Your task to perform on an android device: see tabs open on other devices in the chrome app Image 0: 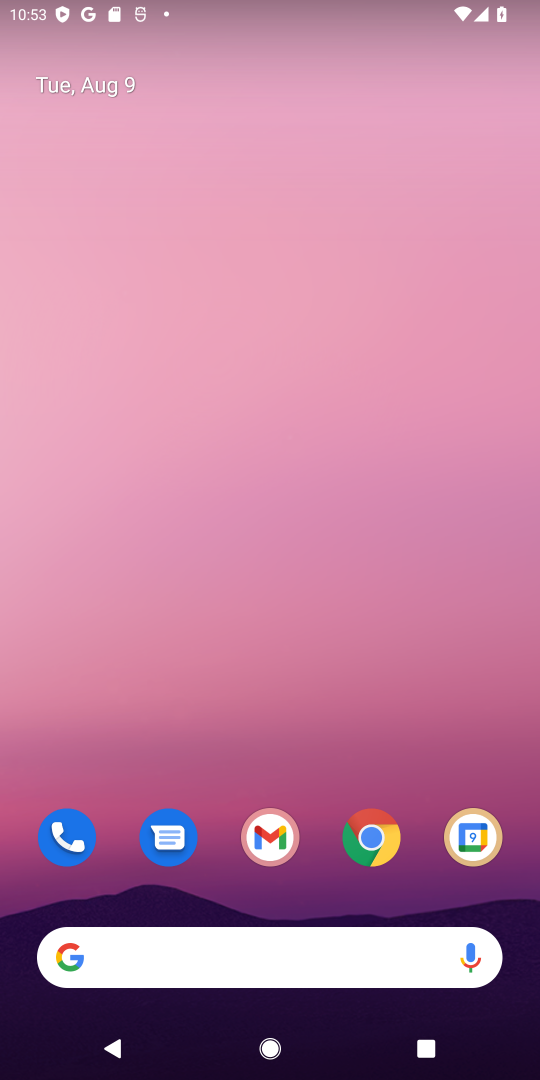
Step 0: click (365, 829)
Your task to perform on an android device: see tabs open on other devices in the chrome app Image 1: 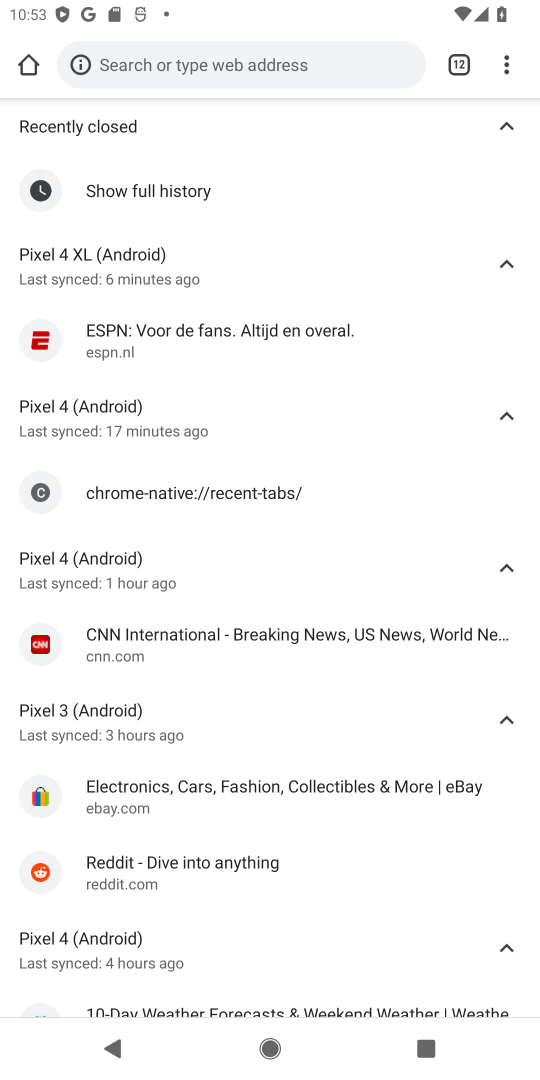
Step 1: task complete